Your task to perform on an android device: Open Android settings Image 0: 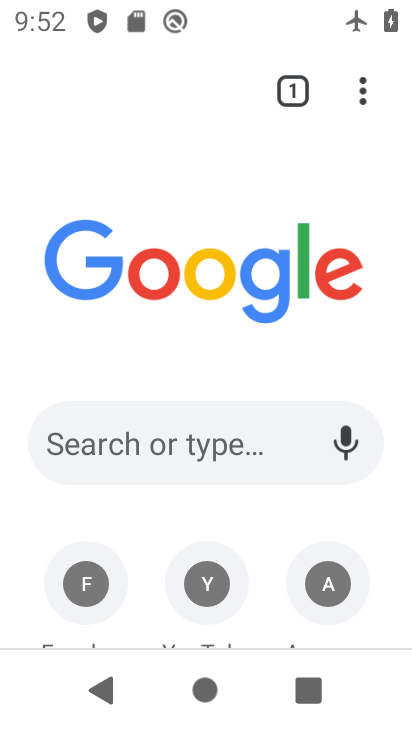
Step 0: press home button
Your task to perform on an android device: Open Android settings Image 1: 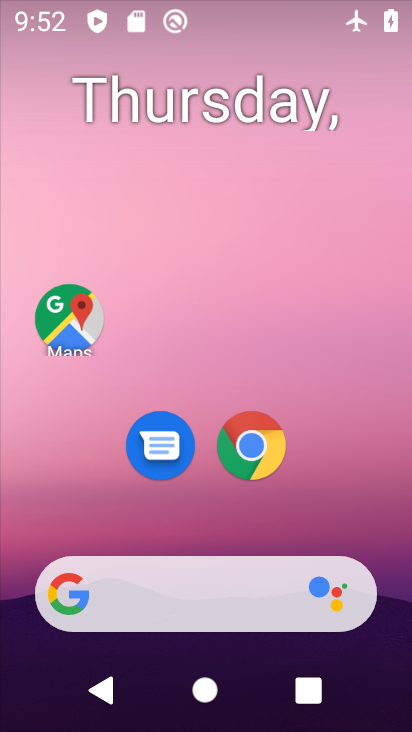
Step 1: drag from (358, 522) to (327, 111)
Your task to perform on an android device: Open Android settings Image 2: 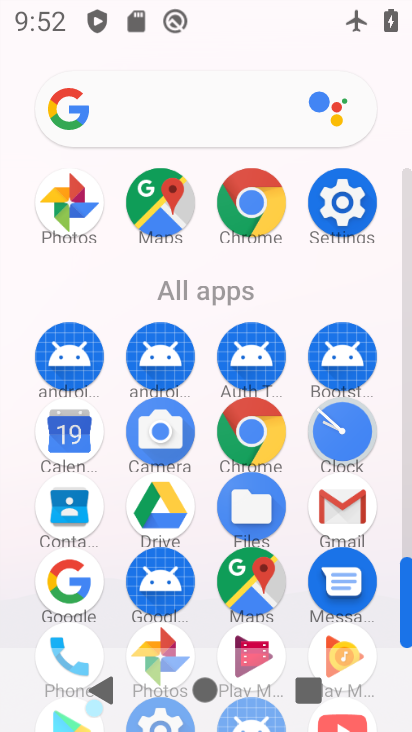
Step 2: click (333, 222)
Your task to perform on an android device: Open Android settings Image 3: 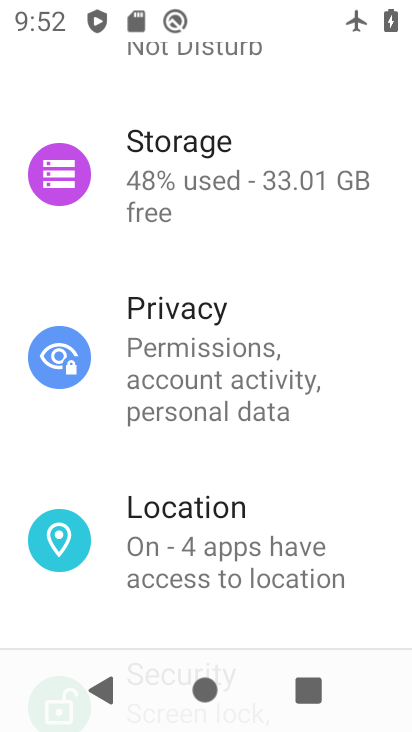
Step 3: drag from (342, 576) to (329, 190)
Your task to perform on an android device: Open Android settings Image 4: 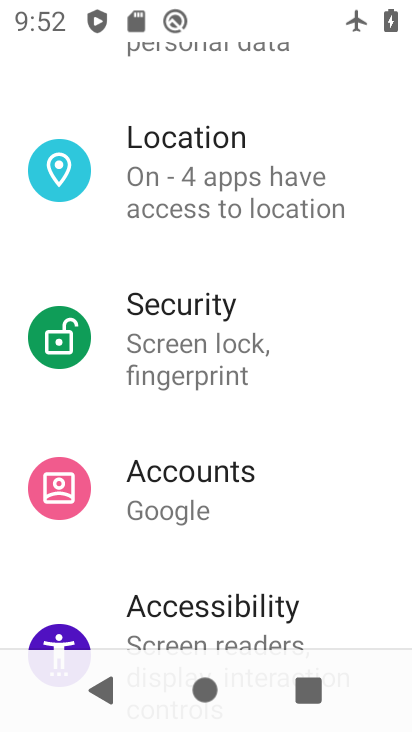
Step 4: drag from (324, 501) to (348, 216)
Your task to perform on an android device: Open Android settings Image 5: 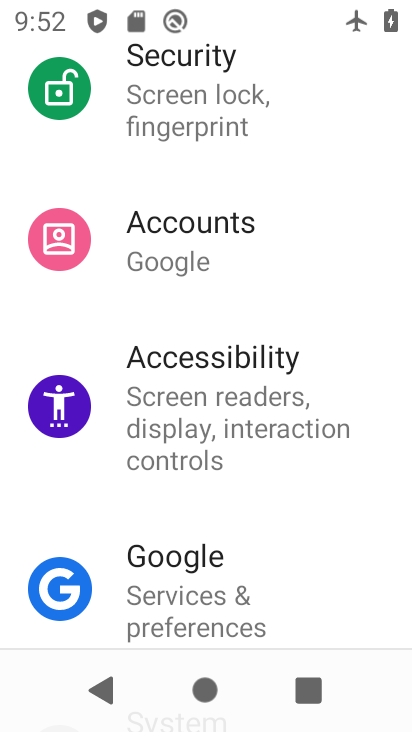
Step 5: drag from (301, 506) to (288, 223)
Your task to perform on an android device: Open Android settings Image 6: 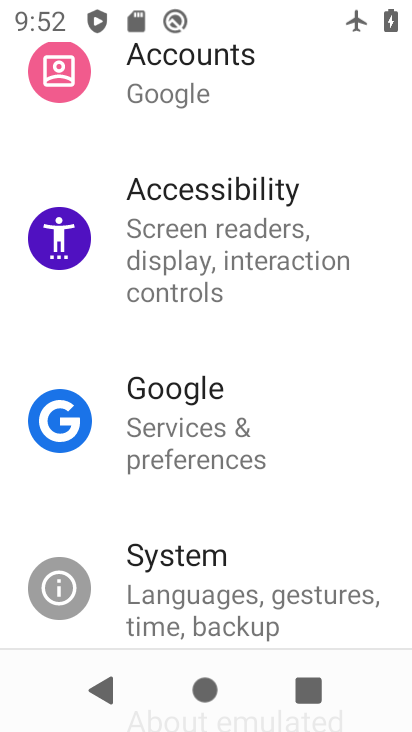
Step 6: drag from (272, 533) to (280, 157)
Your task to perform on an android device: Open Android settings Image 7: 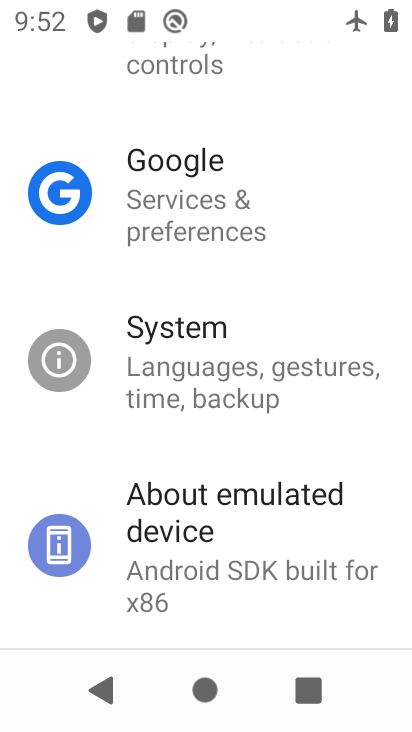
Step 7: drag from (303, 534) to (293, 155)
Your task to perform on an android device: Open Android settings Image 8: 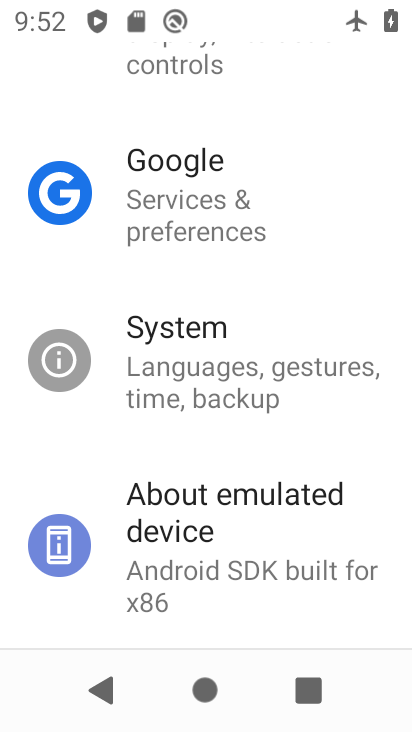
Step 8: click (257, 505)
Your task to perform on an android device: Open Android settings Image 9: 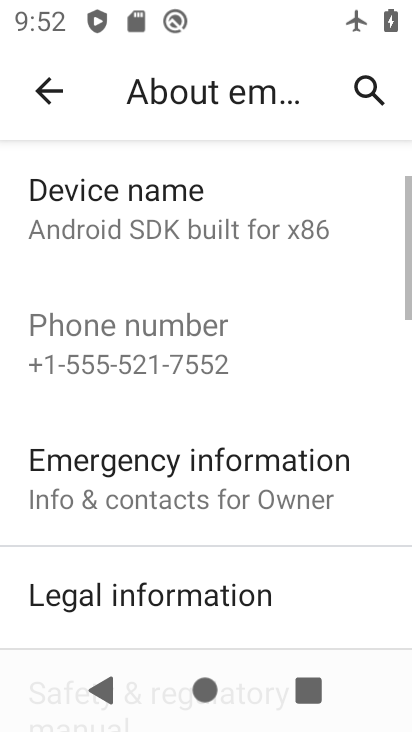
Step 9: drag from (323, 579) to (305, 181)
Your task to perform on an android device: Open Android settings Image 10: 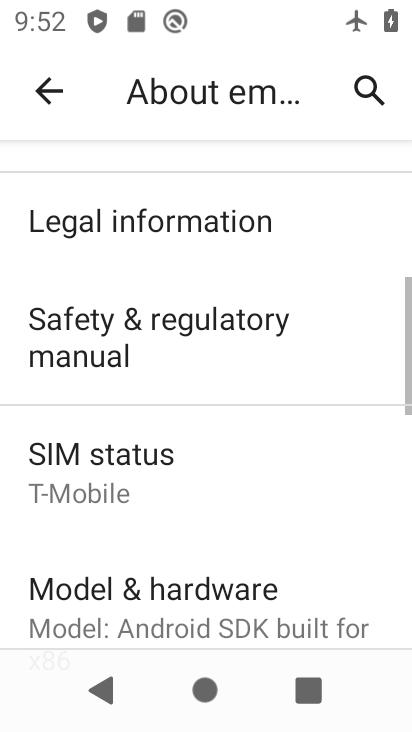
Step 10: drag from (298, 482) to (294, 231)
Your task to perform on an android device: Open Android settings Image 11: 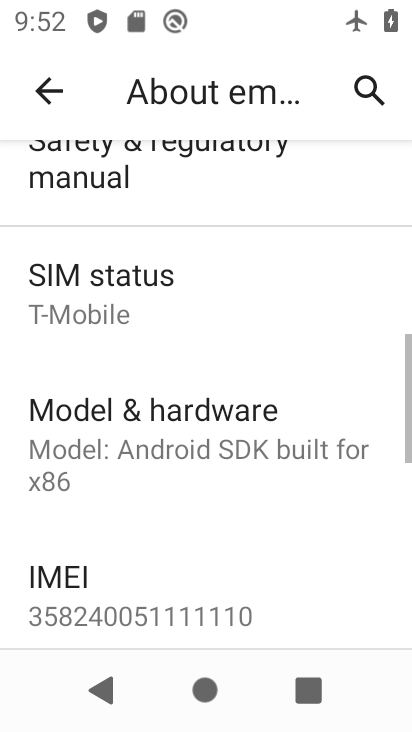
Step 11: drag from (282, 572) to (277, 333)
Your task to perform on an android device: Open Android settings Image 12: 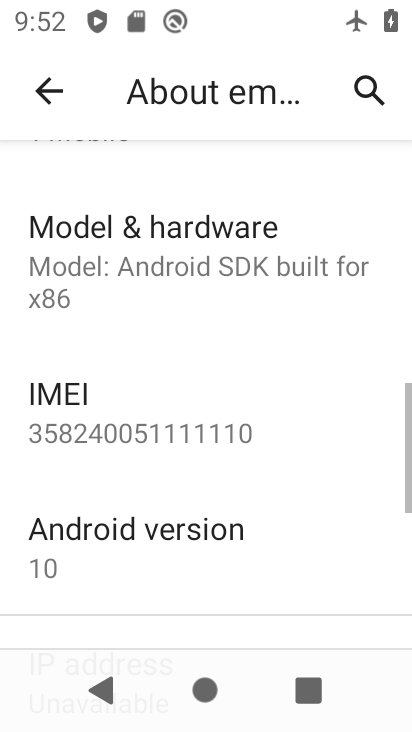
Step 12: drag from (299, 561) to (306, 193)
Your task to perform on an android device: Open Android settings Image 13: 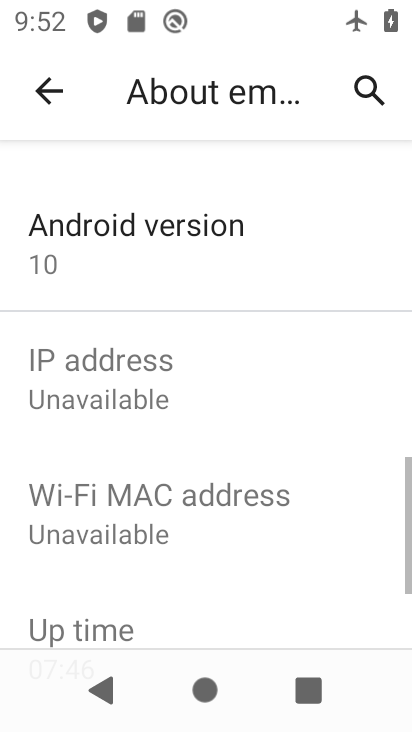
Step 13: click (265, 244)
Your task to perform on an android device: Open Android settings Image 14: 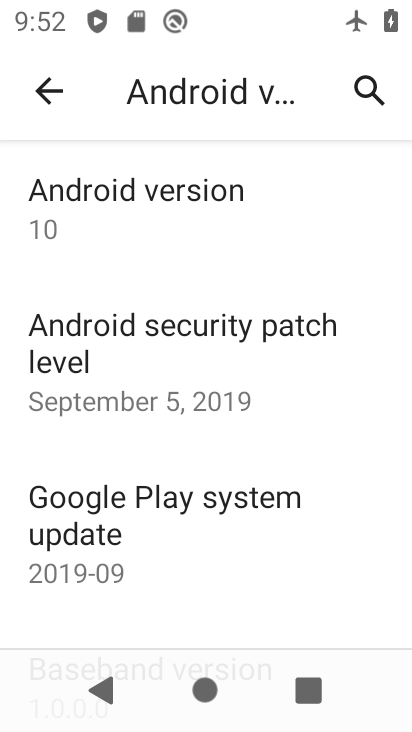
Step 14: task complete